Your task to perform on an android device: Go to Yahoo.com Image 0: 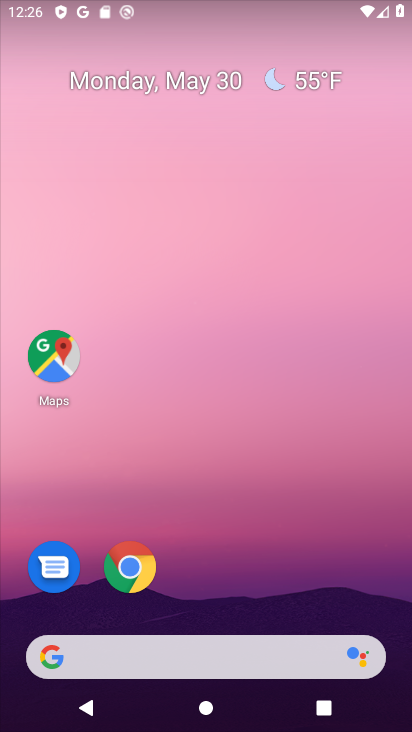
Step 0: press home button
Your task to perform on an android device: Go to Yahoo.com Image 1: 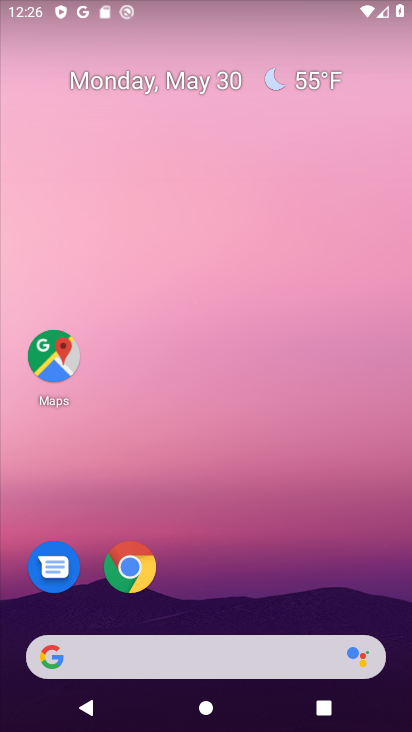
Step 1: click (125, 560)
Your task to perform on an android device: Go to Yahoo.com Image 2: 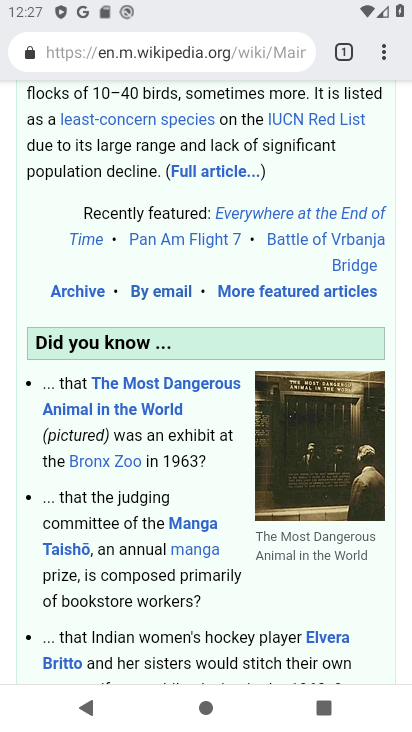
Step 2: click (340, 45)
Your task to perform on an android device: Go to Yahoo.com Image 3: 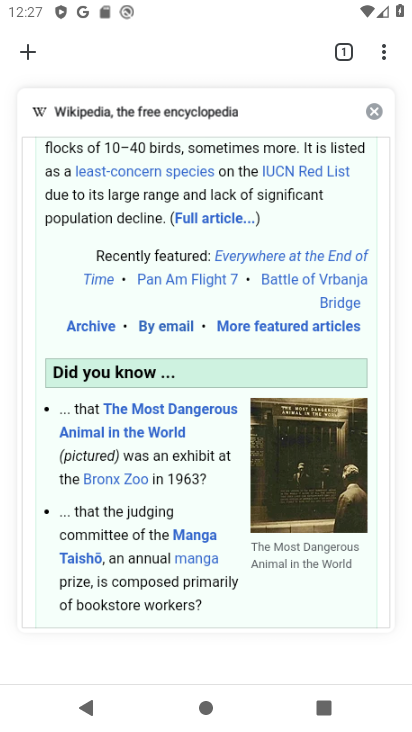
Step 3: click (372, 109)
Your task to perform on an android device: Go to Yahoo.com Image 4: 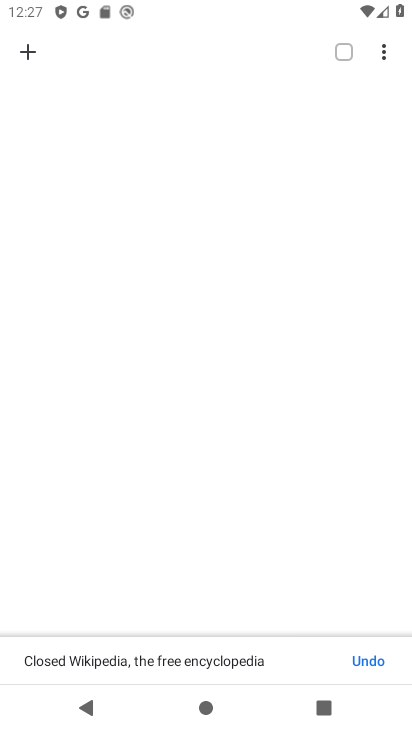
Step 4: click (22, 50)
Your task to perform on an android device: Go to Yahoo.com Image 5: 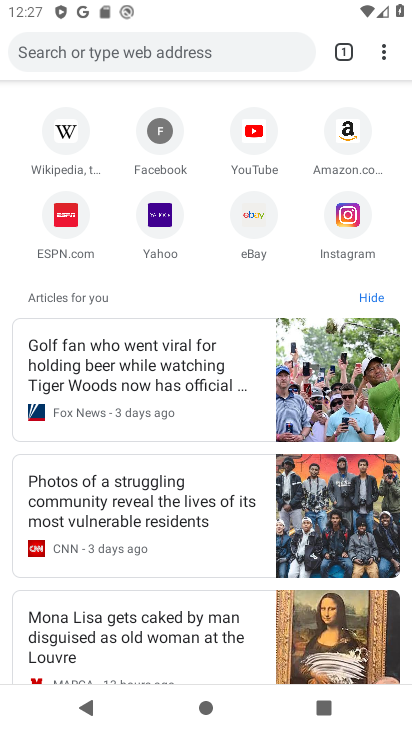
Step 5: click (152, 217)
Your task to perform on an android device: Go to Yahoo.com Image 6: 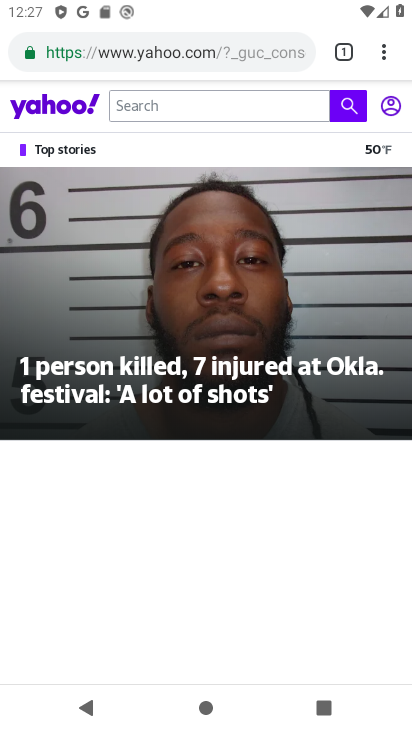
Step 6: task complete